Your task to perform on an android device: Is it going to rain tomorrow? Image 0: 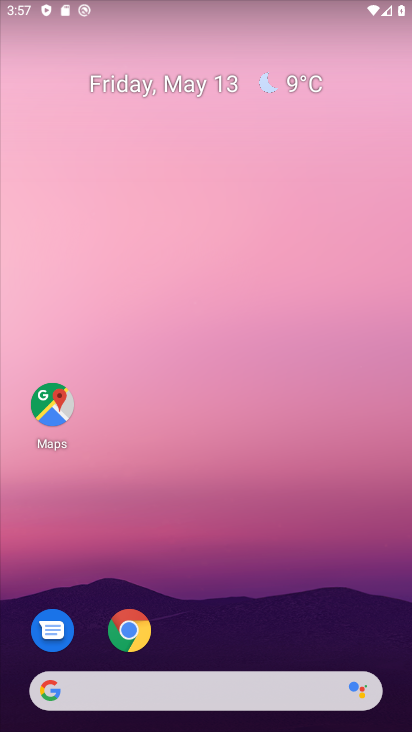
Step 0: drag from (214, 580) to (262, 13)
Your task to perform on an android device: Is it going to rain tomorrow? Image 1: 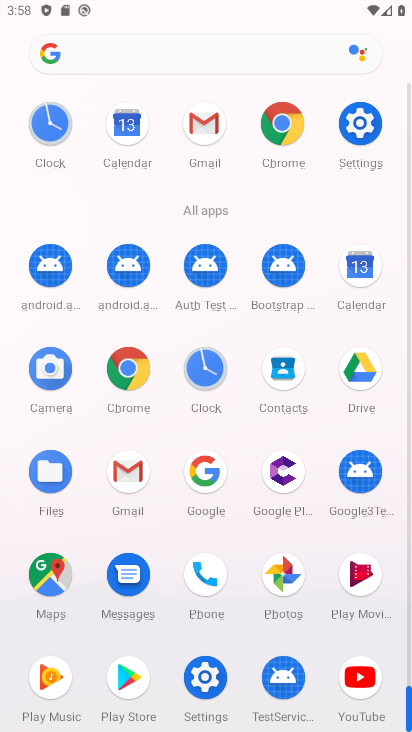
Step 1: drag from (15, 515) to (8, 186)
Your task to perform on an android device: Is it going to rain tomorrow? Image 2: 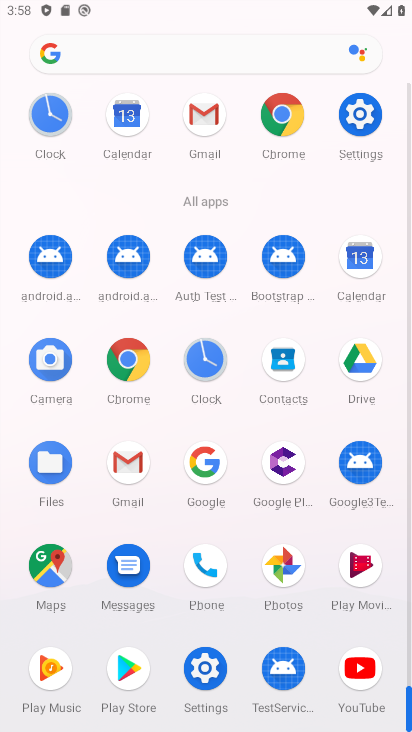
Step 2: drag from (19, 525) to (19, 223)
Your task to perform on an android device: Is it going to rain tomorrow? Image 3: 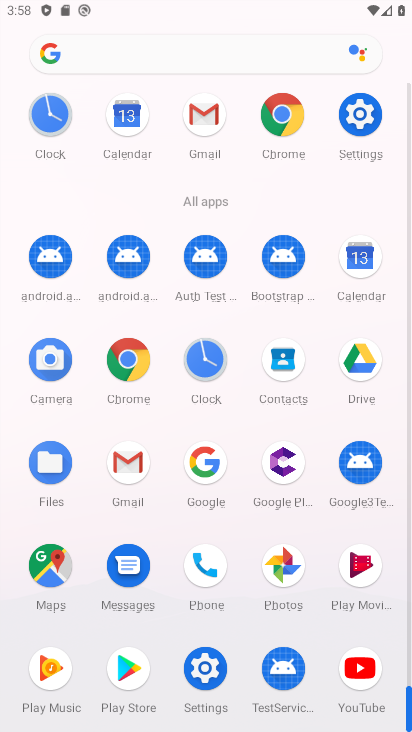
Step 3: click (129, 353)
Your task to perform on an android device: Is it going to rain tomorrow? Image 4: 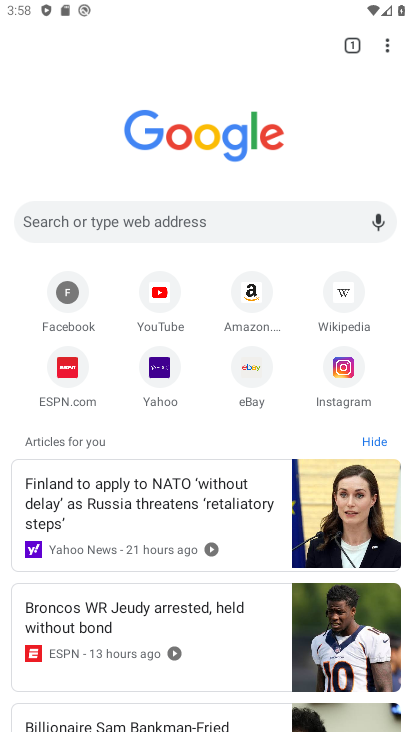
Step 4: click (215, 217)
Your task to perform on an android device: Is it going to rain tomorrow? Image 5: 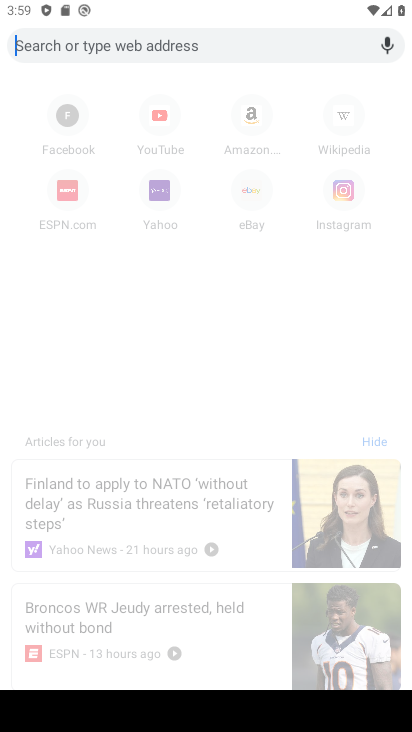
Step 5: type "Is it going to rain tomorrow?"
Your task to perform on an android device: Is it going to rain tomorrow? Image 6: 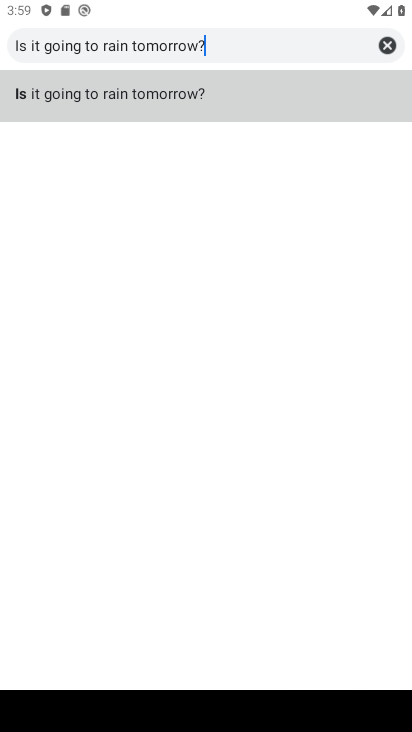
Step 6: type ""
Your task to perform on an android device: Is it going to rain tomorrow? Image 7: 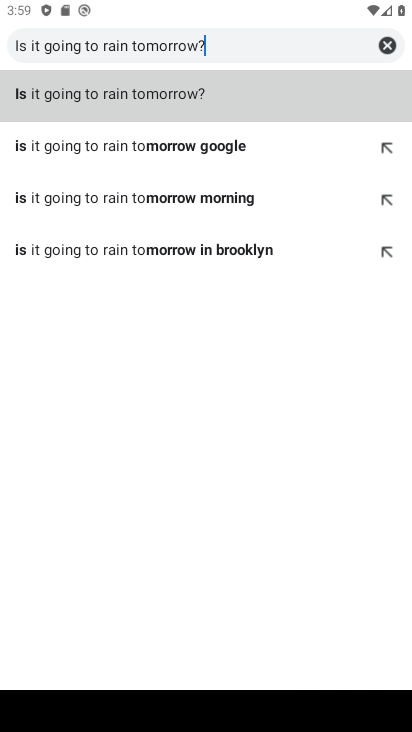
Step 7: click (163, 92)
Your task to perform on an android device: Is it going to rain tomorrow? Image 8: 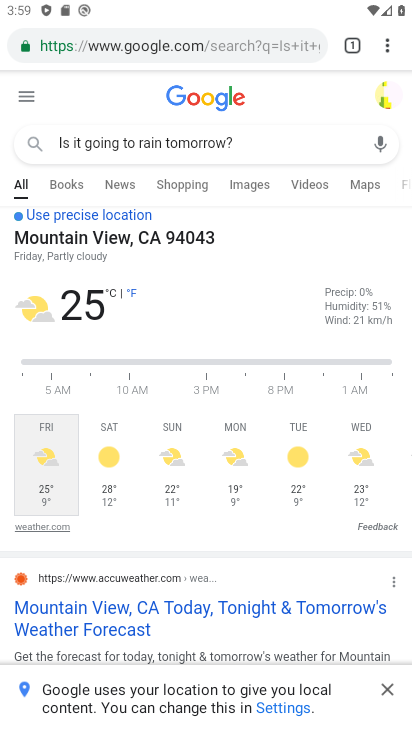
Step 8: task complete